Your task to perform on an android device: How do I get to the nearest Chipotle? Image 0: 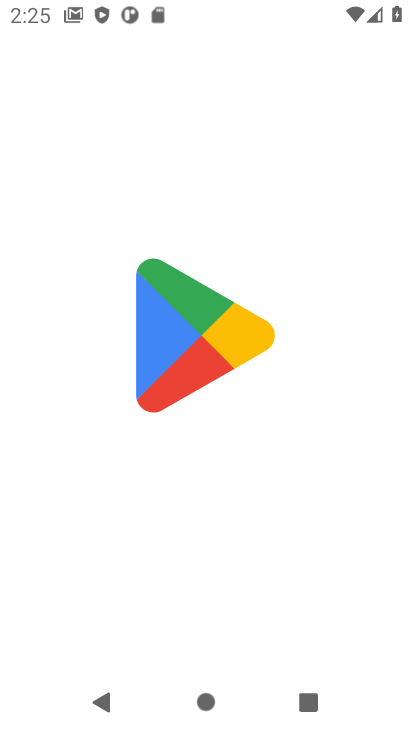
Step 0: press home button
Your task to perform on an android device: How do I get to the nearest Chipotle? Image 1: 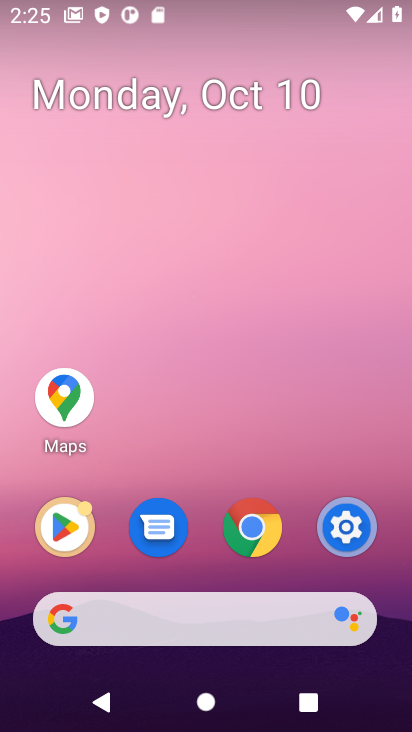
Step 1: click (239, 612)
Your task to perform on an android device: How do I get to the nearest Chipotle? Image 2: 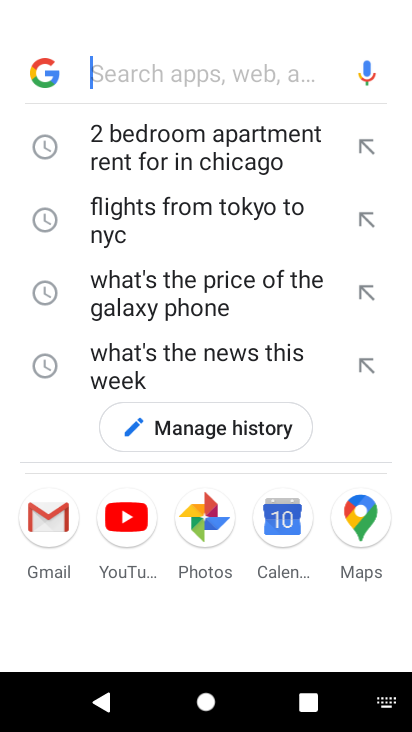
Step 2: type "How do I get to the nearest Chipotle"
Your task to perform on an android device: How do I get to the nearest Chipotle? Image 3: 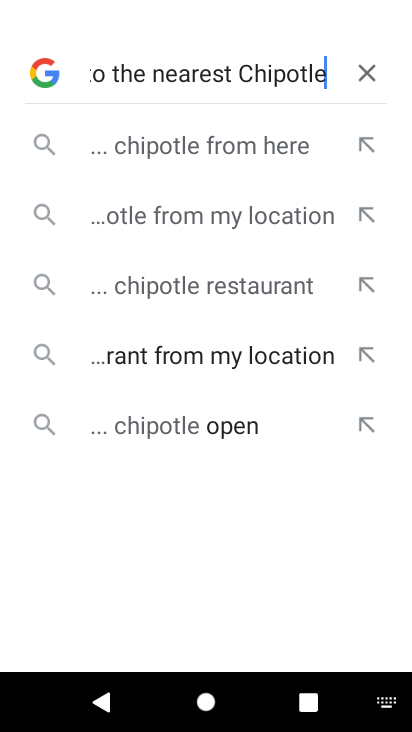
Step 3: press enter
Your task to perform on an android device: How do I get to the nearest Chipotle? Image 4: 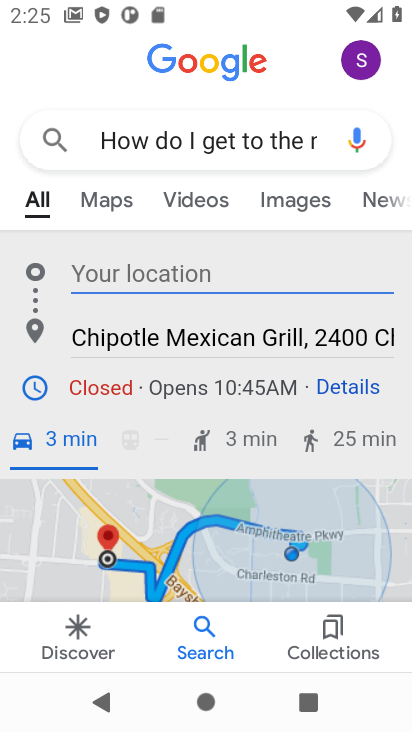
Step 4: task complete